Your task to perform on an android device: Go to accessibility settings Image 0: 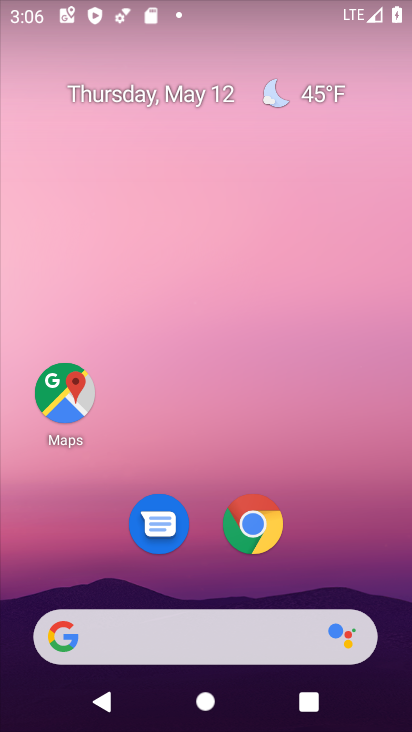
Step 0: drag from (339, 522) to (310, 43)
Your task to perform on an android device: Go to accessibility settings Image 1: 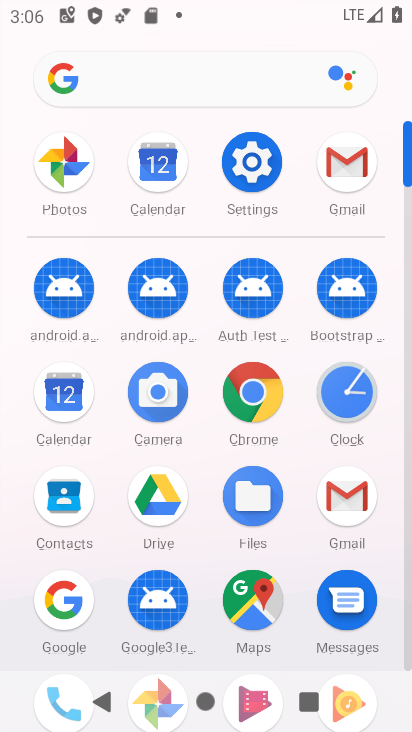
Step 1: click (264, 164)
Your task to perform on an android device: Go to accessibility settings Image 2: 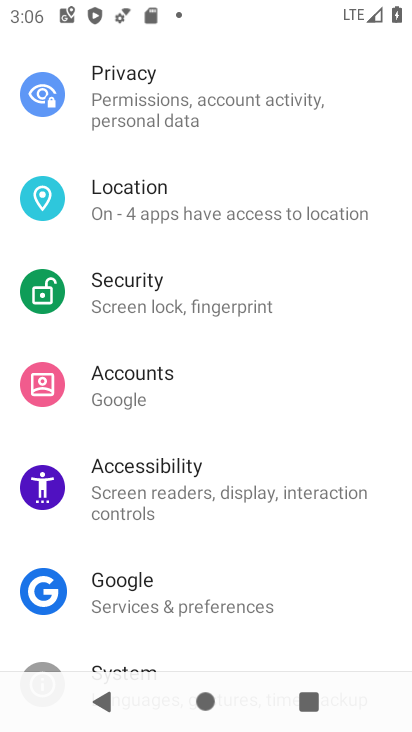
Step 2: click (249, 476)
Your task to perform on an android device: Go to accessibility settings Image 3: 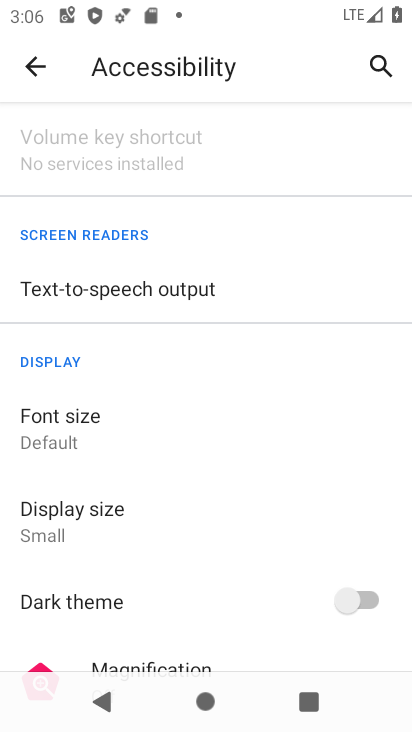
Step 3: task complete